Your task to perform on an android device: Search for "logitech g502" on amazon.com, select the first entry, and add it to the cart. Image 0: 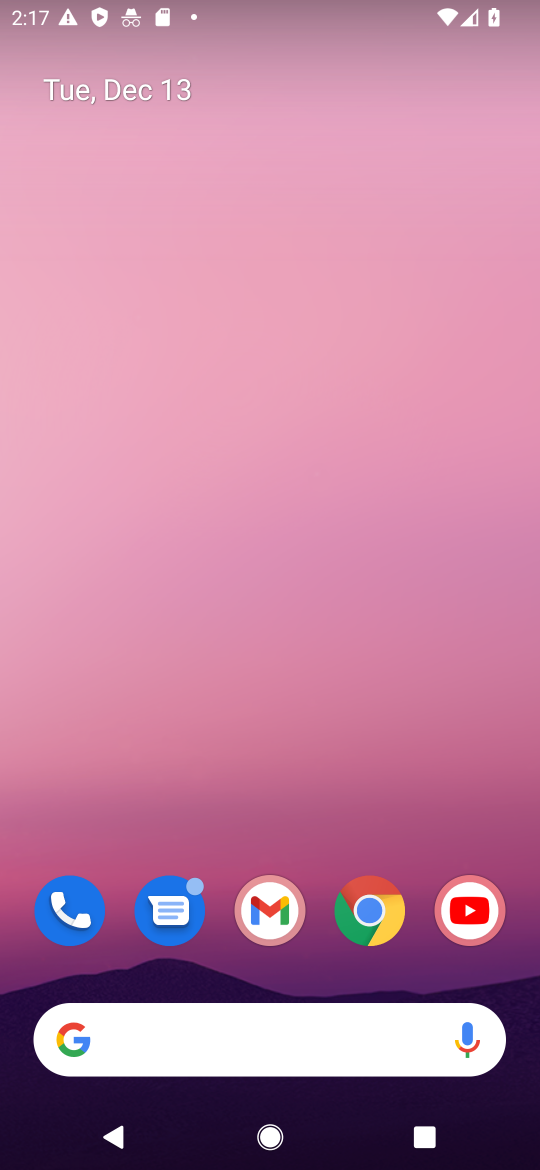
Step 0: click (355, 918)
Your task to perform on an android device: Search for "logitech g502" on amazon.com, select the first entry, and add it to the cart. Image 1: 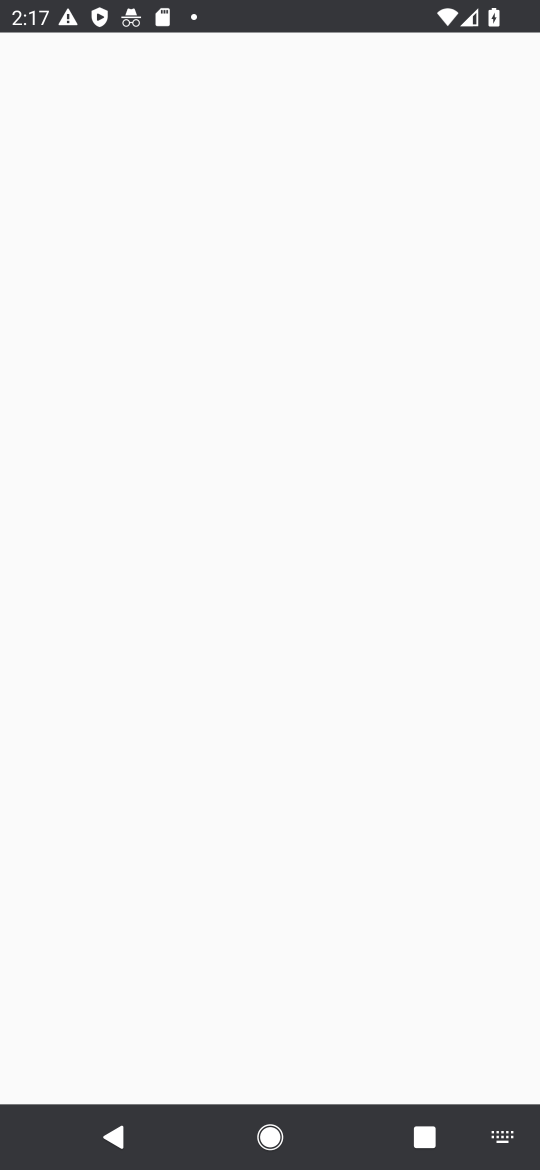
Step 1: press home button
Your task to perform on an android device: Search for "logitech g502" on amazon.com, select the first entry, and add it to the cart. Image 2: 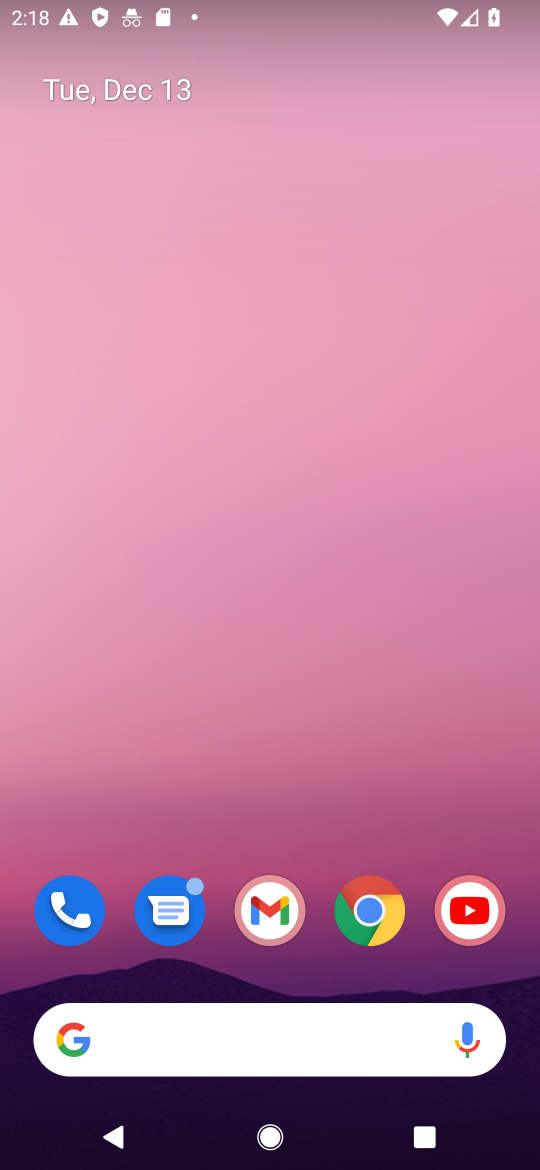
Step 2: click (361, 908)
Your task to perform on an android device: Search for "logitech g502" on amazon.com, select the first entry, and add it to the cart. Image 3: 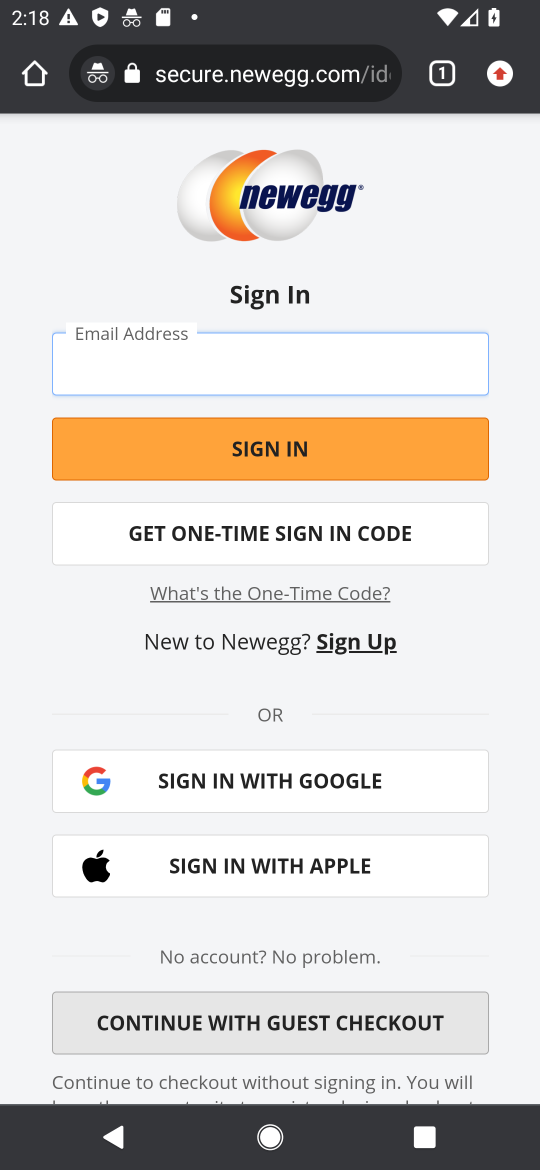
Step 3: click (255, 70)
Your task to perform on an android device: Search for "logitech g502" on amazon.com, select the first entry, and add it to the cart. Image 4: 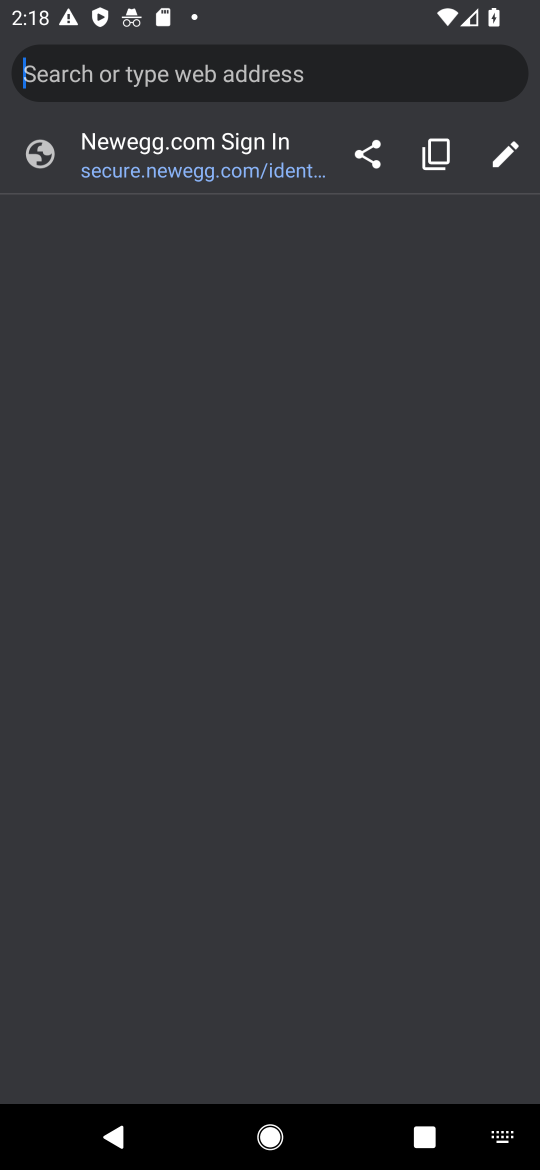
Step 4: type "AMAZON"
Your task to perform on an android device: Search for "logitech g502" on amazon.com, select the first entry, and add it to the cart. Image 5: 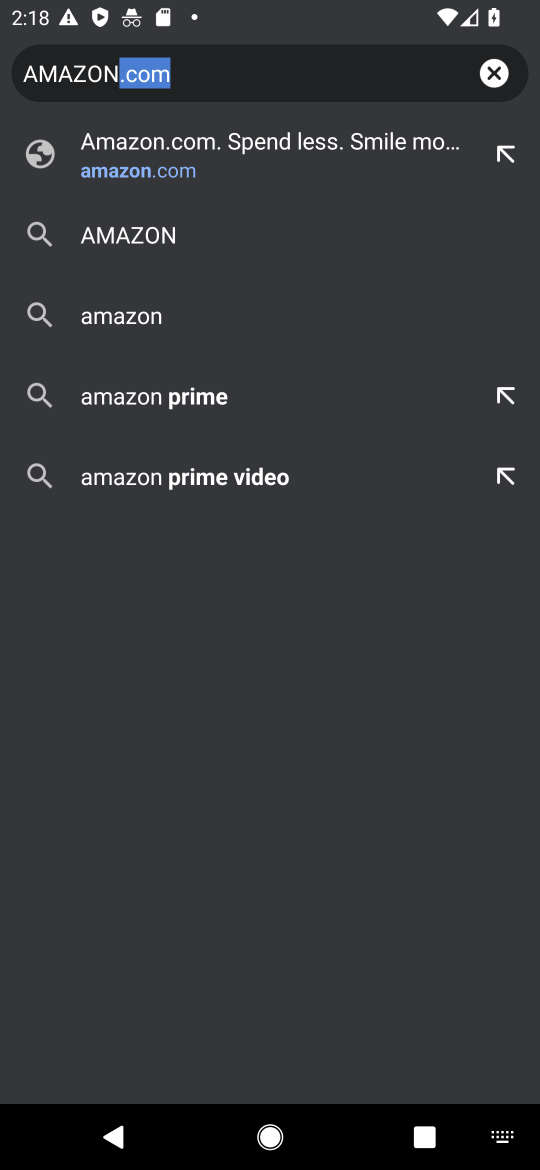
Step 5: click (210, 172)
Your task to perform on an android device: Search for "logitech g502" on amazon.com, select the first entry, and add it to the cart. Image 6: 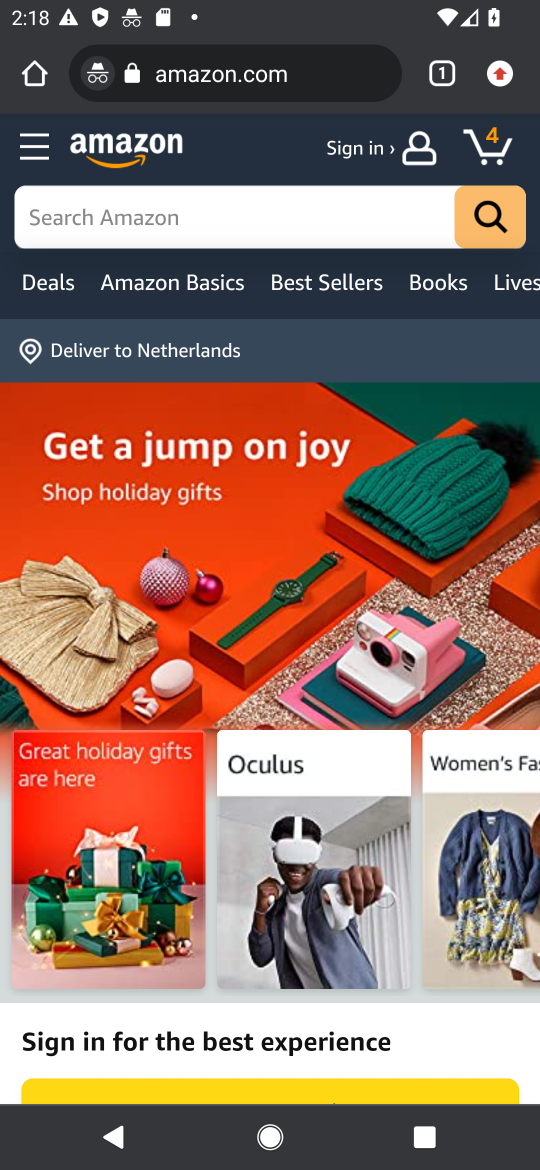
Step 6: click (252, 221)
Your task to perform on an android device: Search for "logitech g502" on amazon.com, select the first entry, and add it to the cart. Image 7: 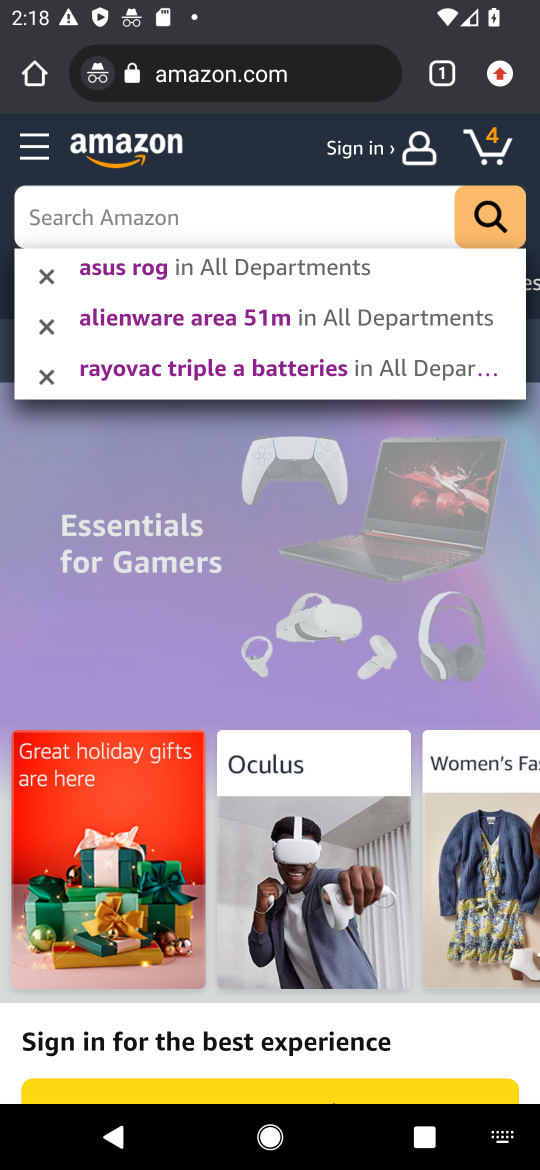
Step 7: type "LOGITECH G502"
Your task to perform on an android device: Search for "logitech g502" on amazon.com, select the first entry, and add it to the cart. Image 8: 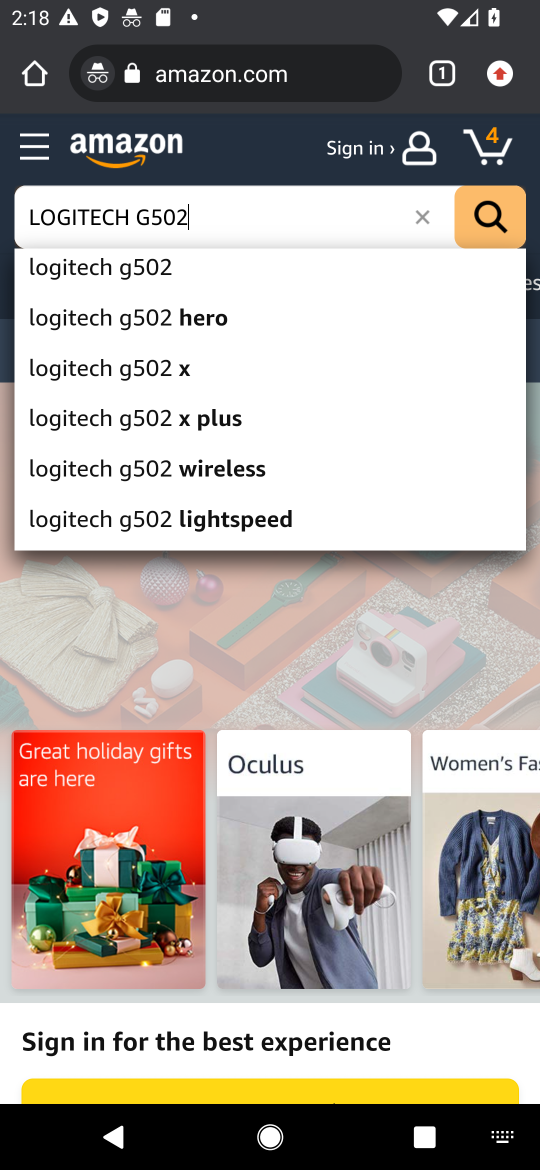
Step 8: click (157, 273)
Your task to perform on an android device: Search for "logitech g502" on amazon.com, select the first entry, and add it to the cart. Image 9: 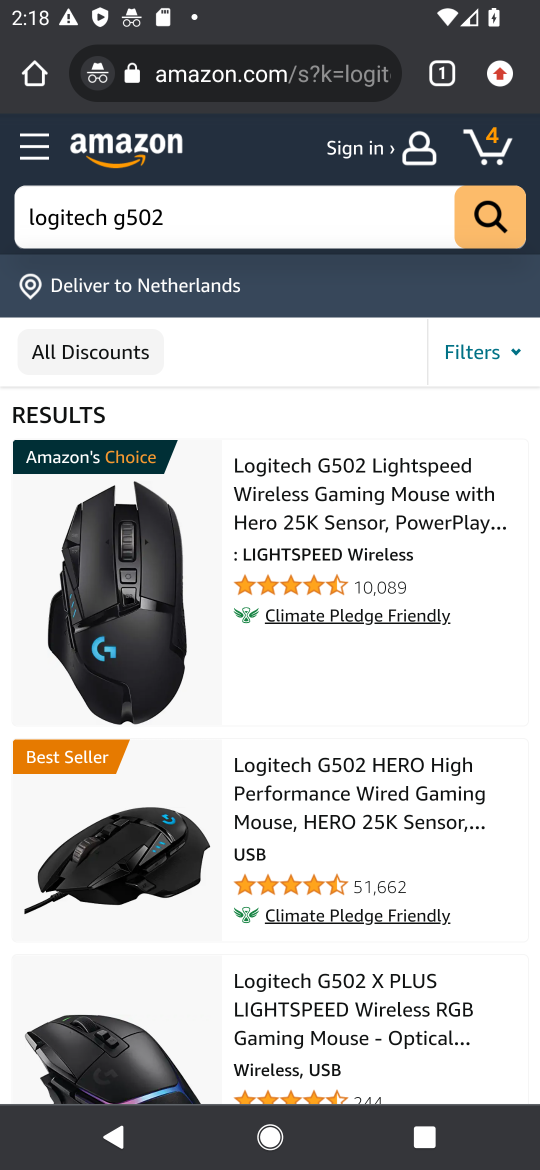
Step 9: click (396, 526)
Your task to perform on an android device: Search for "logitech g502" on amazon.com, select the first entry, and add it to the cart. Image 10: 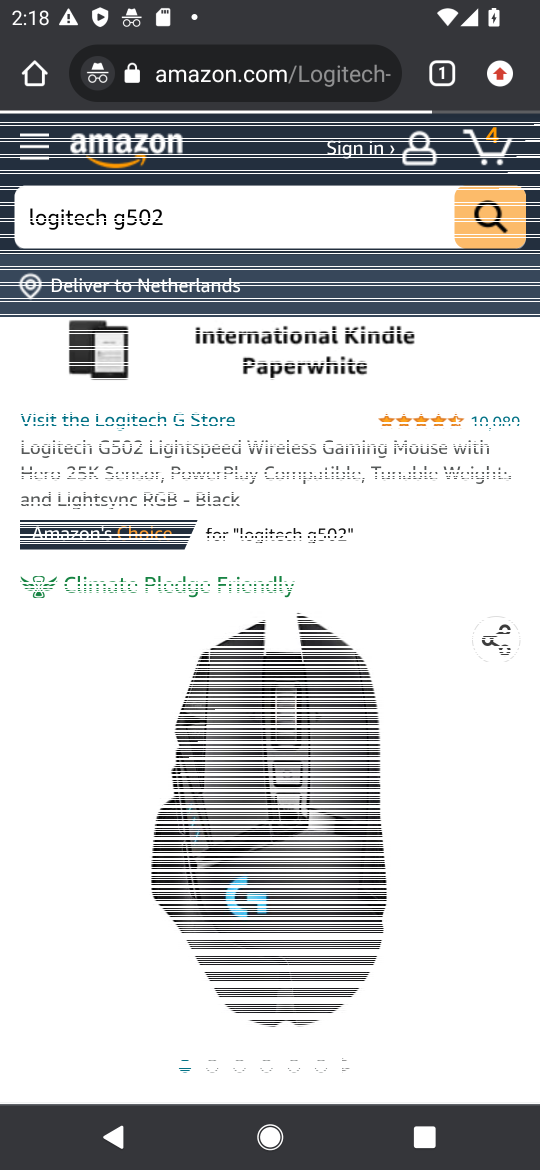
Step 10: task complete